Your task to perform on an android device: Open my contact list Image 0: 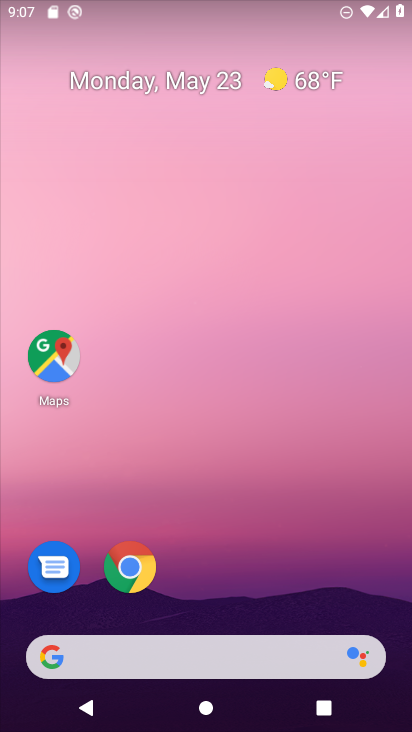
Step 0: drag from (246, 553) to (313, 67)
Your task to perform on an android device: Open my contact list Image 1: 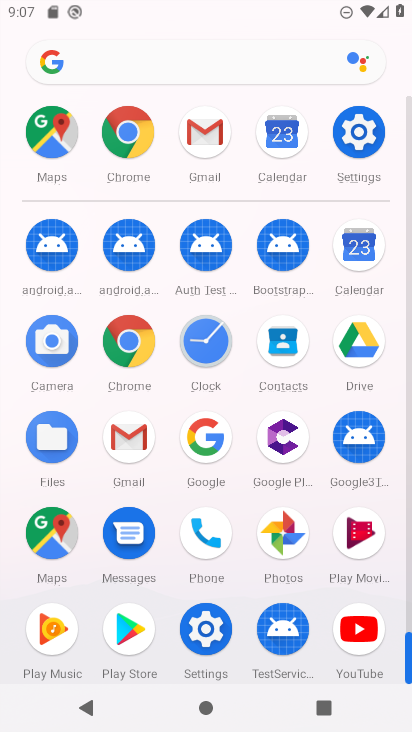
Step 1: click (279, 331)
Your task to perform on an android device: Open my contact list Image 2: 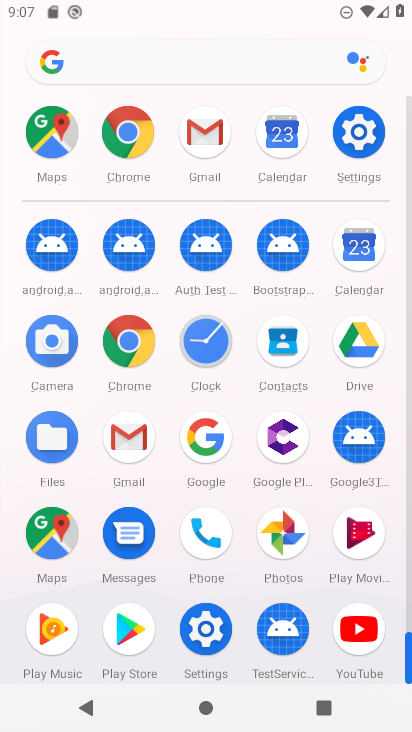
Step 2: click (279, 331)
Your task to perform on an android device: Open my contact list Image 3: 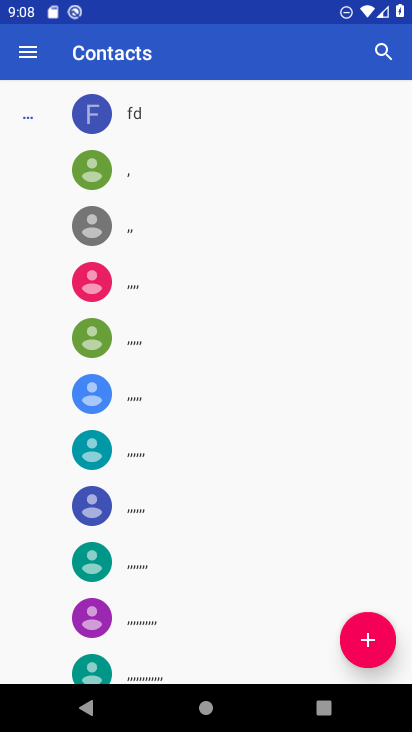
Step 3: task complete